Your task to perform on an android device: check data usage Image 0: 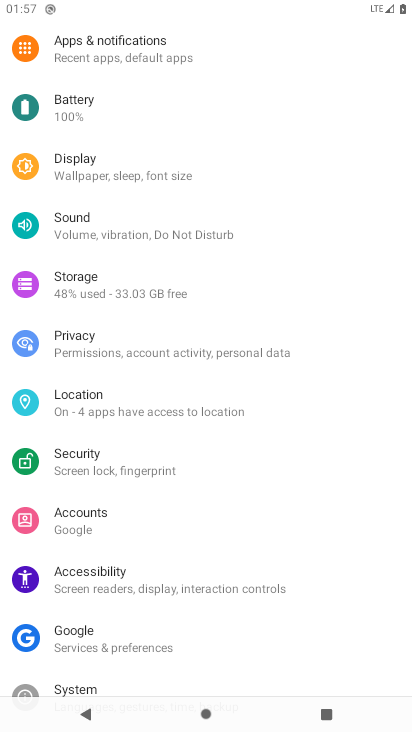
Step 0: drag from (147, 50) to (156, 529)
Your task to perform on an android device: check data usage Image 1: 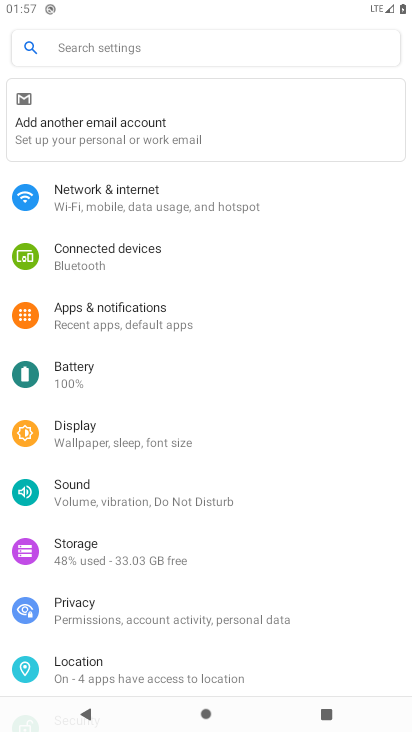
Step 1: click (168, 192)
Your task to perform on an android device: check data usage Image 2: 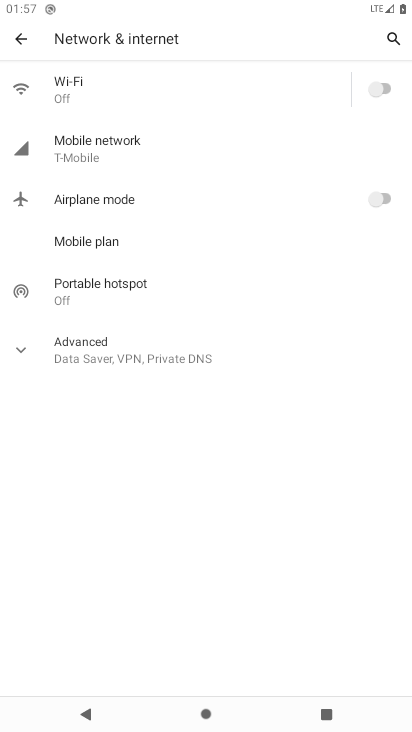
Step 2: click (136, 148)
Your task to perform on an android device: check data usage Image 3: 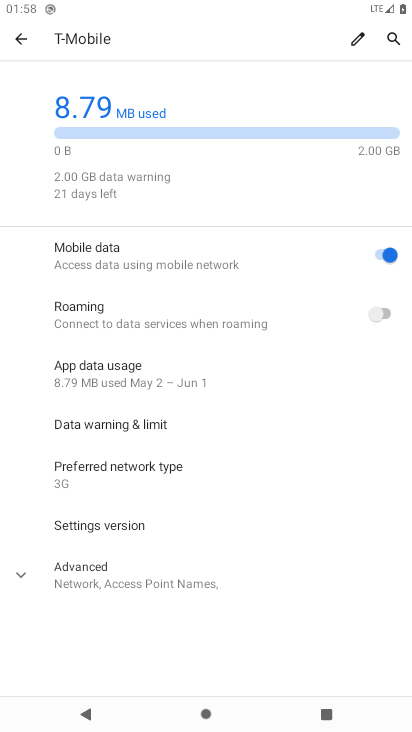
Step 3: click (135, 362)
Your task to perform on an android device: check data usage Image 4: 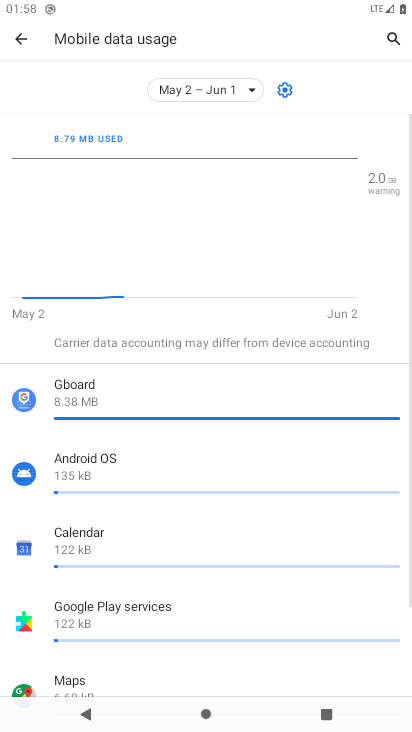
Step 4: task complete